Your task to perform on an android device: open sync settings in chrome Image 0: 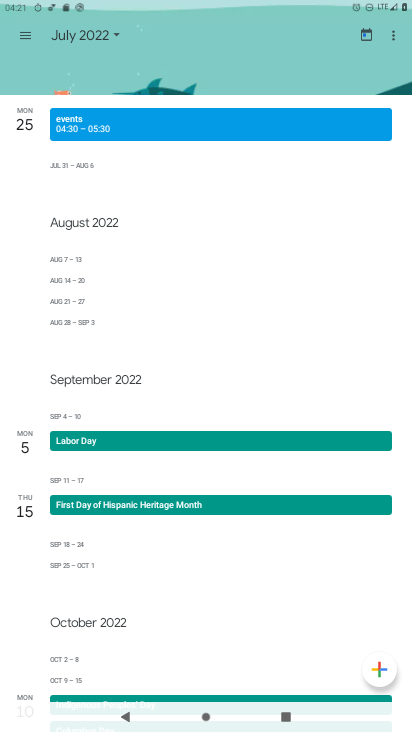
Step 0: press home button
Your task to perform on an android device: open sync settings in chrome Image 1: 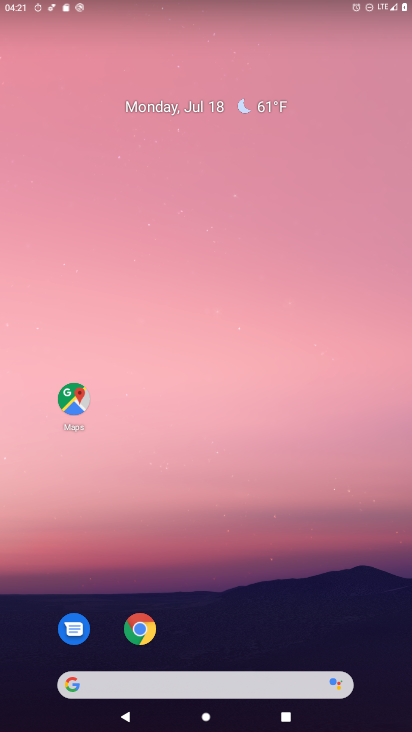
Step 1: click (141, 631)
Your task to perform on an android device: open sync settings in chrome Image 2: 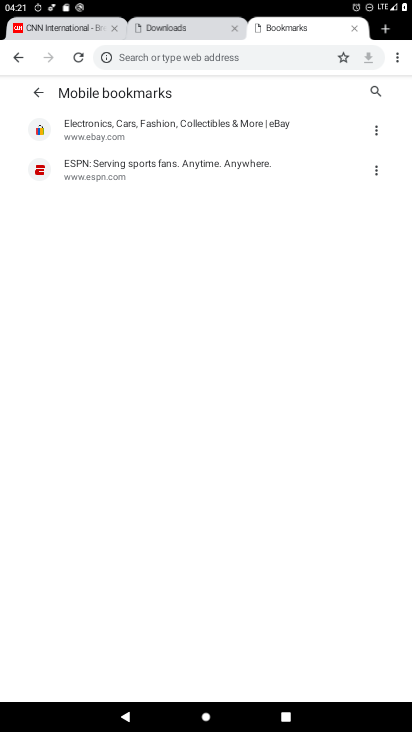
Step 2: click (398, 56)
Your task to perform on an android device: open sync settings in chrome Image 3: 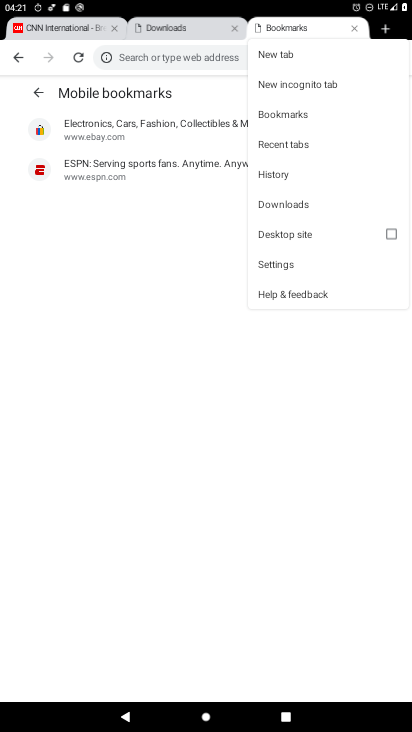
Step 3: click (289, 265)
Your task to perform on an android device: open sync settings in chrome Image 4: 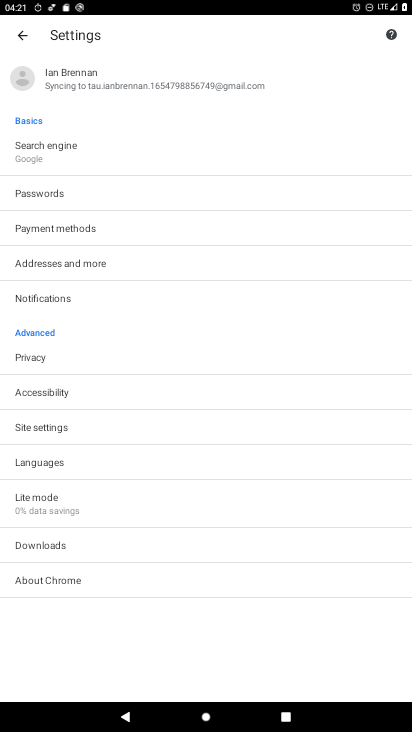
Step 4: click (52, 427)
Your task to perform on an android device: open sync settings in chrome Image 5: 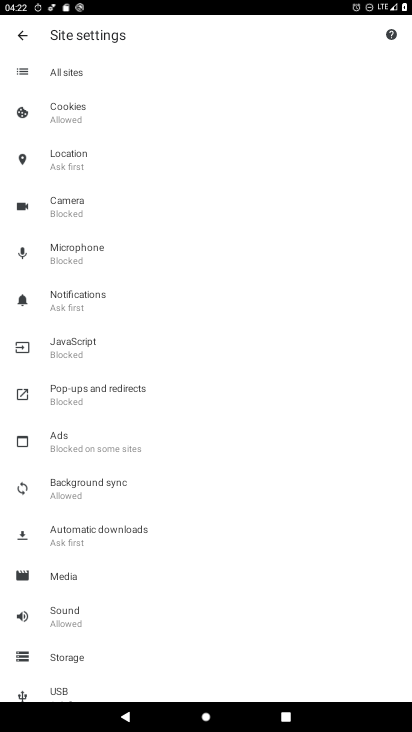
Step 5: click (93, 478)
Your task to perform on an android device: open sync settings in chrome Image 6: 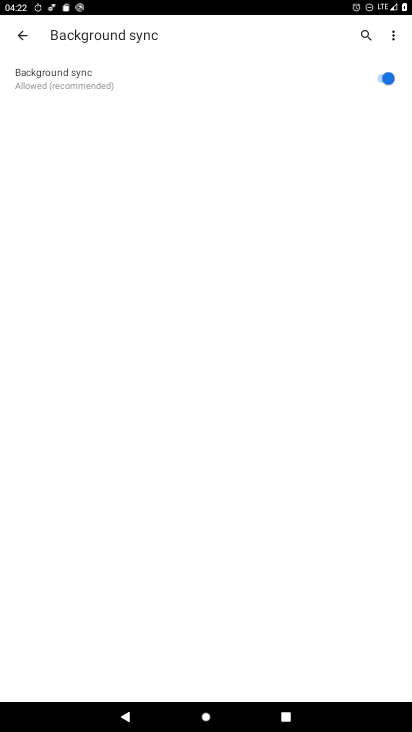
Step 6: task complete